Your task to perform on an android device: set the timer Image 0: 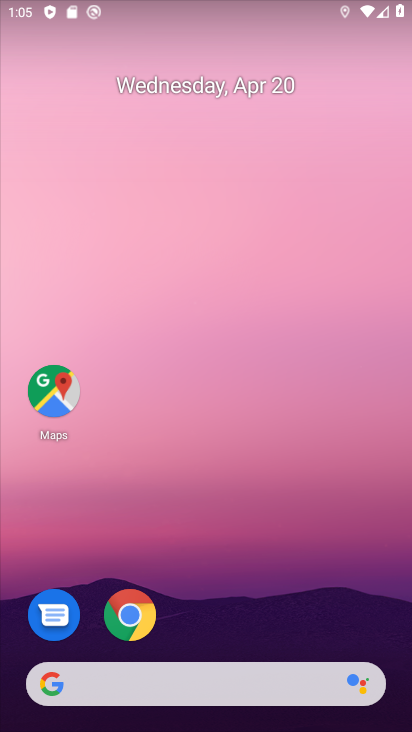
Step 0: drag from (50, 481) to (212, 116)
Your task to perform on an android device: set the timer Image 1: 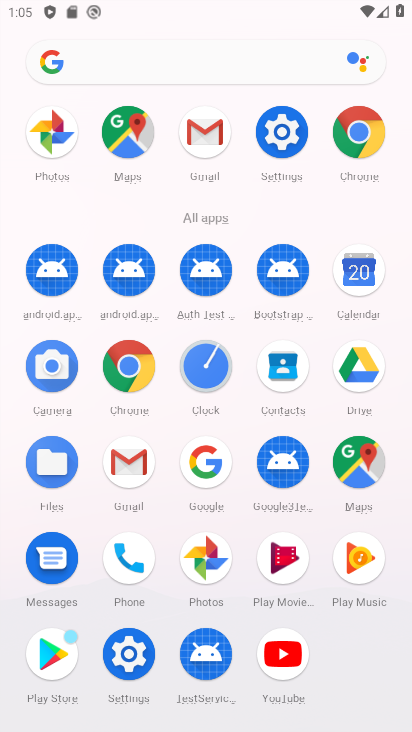
Step 1: click (200, 375)
Your task to perform on an android device: set the timer Image 2: 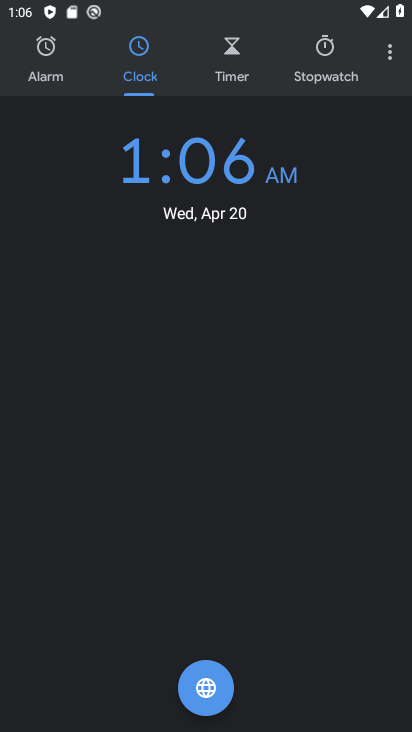
Step 2: click (237, 45)
Your task to perform on an android device: set the timer Image 3: 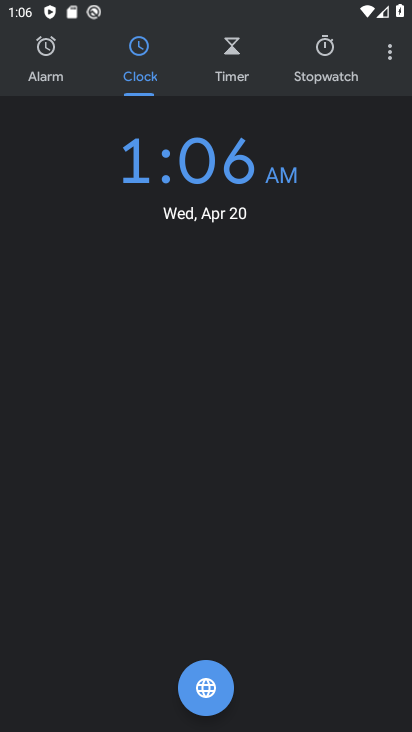
Step 3: click (234, 53)
Your task to perform on an android device: set the timer Image 4: 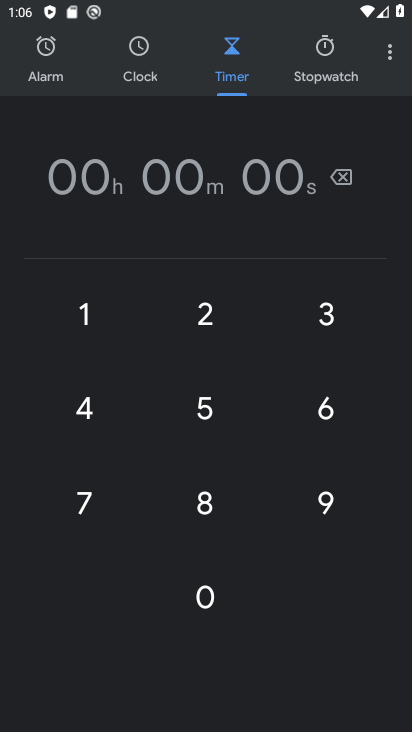
Step 4: click (202, 588)
Your task to perform on an android device: set the timer Image 5: 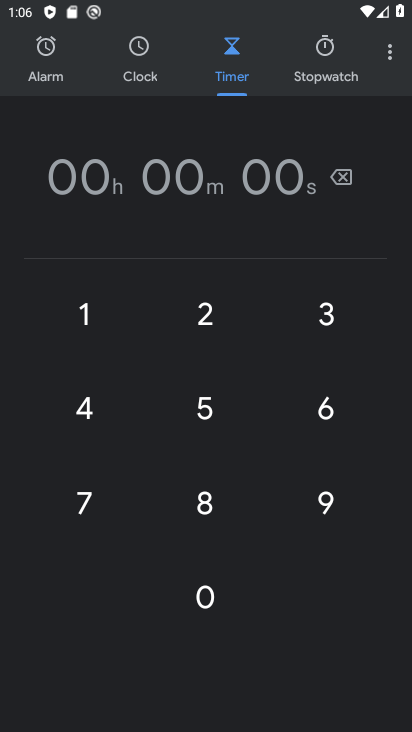
Step 5: drag from (74, 312) to (185, 312)
Your task to perform on an android device: set the timer Image 6: 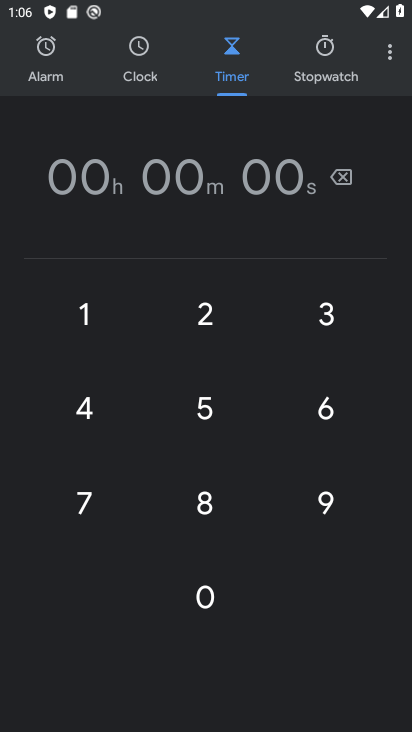
Step 6: click (203, 606)
Your task to perform on an android device: set the timer Image 7: 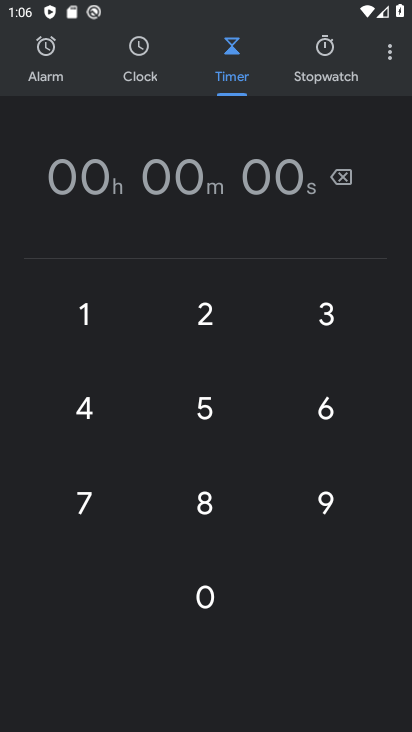
Step 7: click (212, 404)
Your task to perform on an android device: set the timer Image 8: 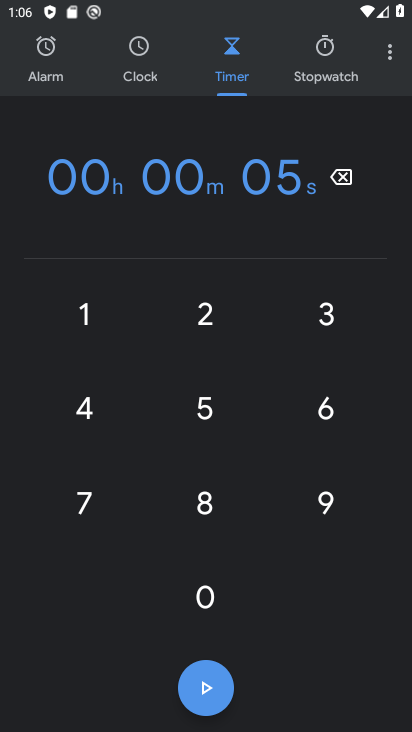
Step 8: click (207, 590)
Your task to perform on an android device: set the timer Image 9: 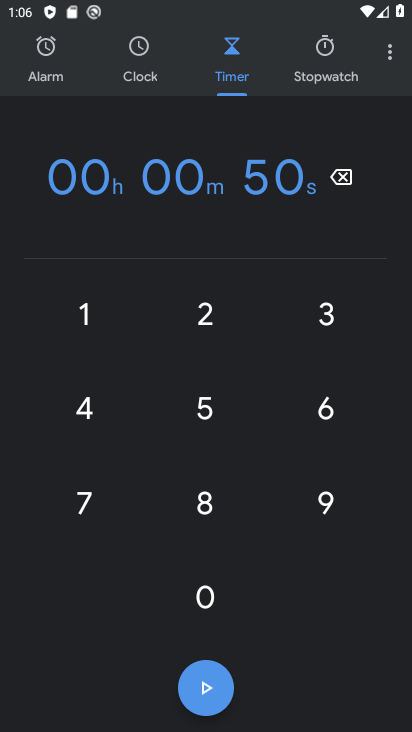
Step 9: click (210, 405)
Your task to perform on an android device: set the timer Image 10: 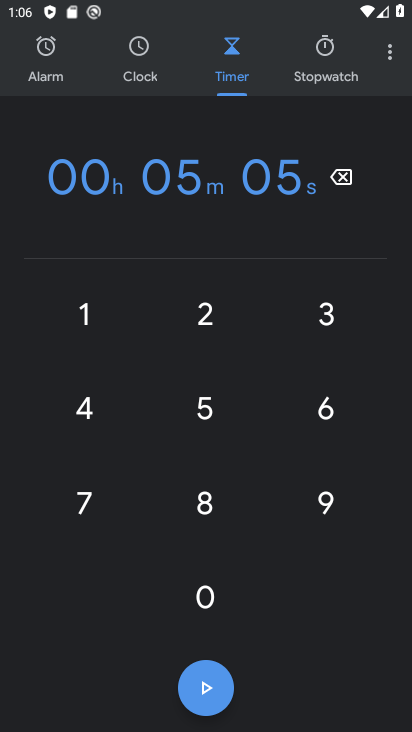
Step 10: click (216, 587)
Your task to perform on an android device: set the timer Image 11: 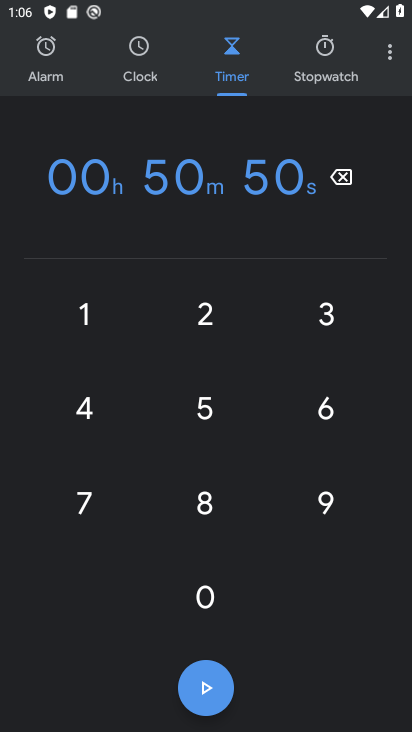
Step 11: click (211, 588)
Your task to perform on an android device: set the timer Image 12: 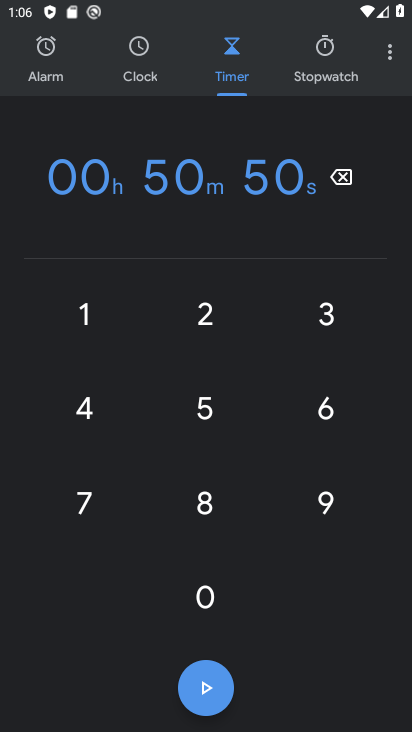
Step 12: click (211, 588)
Your task to perform on an android device: set the timer Image 13: 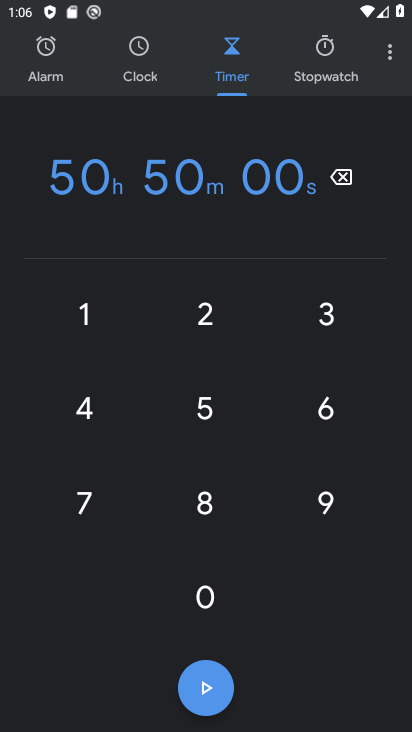
Step 13: click (194, 700)
Your task to perform on an android device: set the timer Image 14: 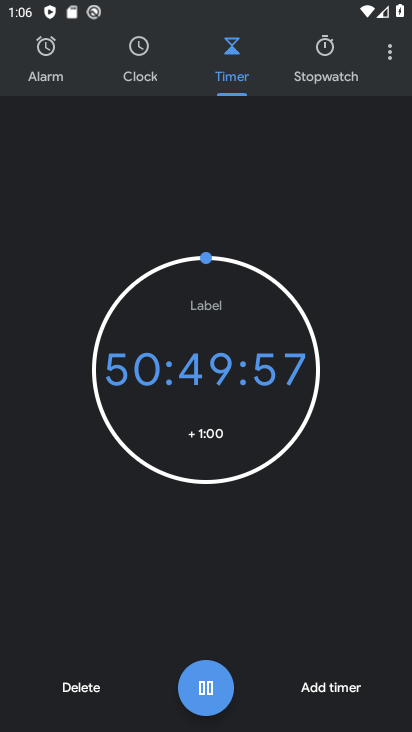
Step 14: task complete